Your task to perform on an android device: open the mobile data screen to see how much data has been used Image 0: 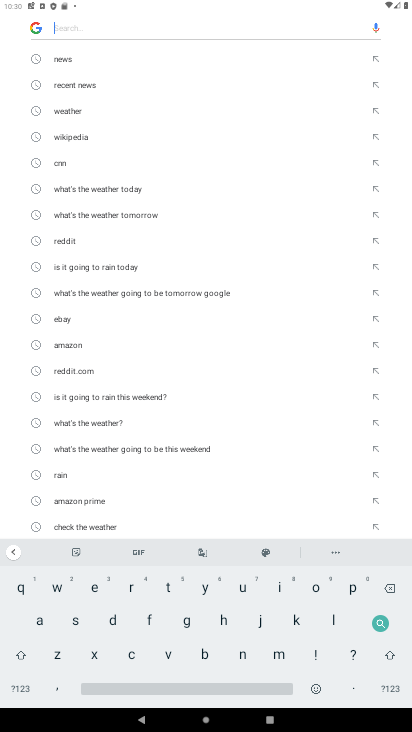
Step 0: press home button
Your task to perform on an android device: open the mobile data screen to see how much data has been used Image 1: 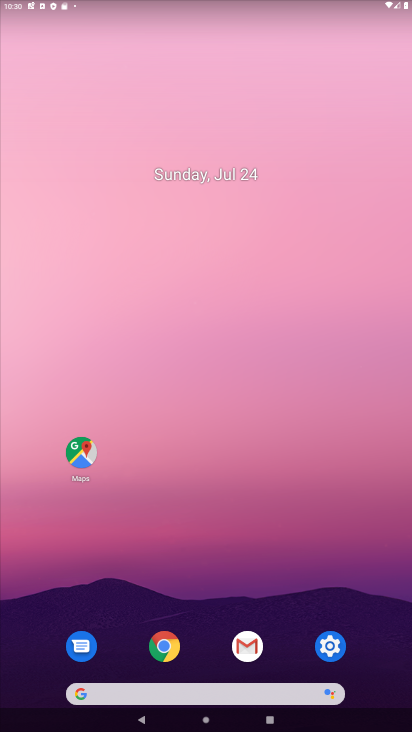
Step 1: click (330, 656)
Your task to perform on an android device: open the mobile data screen to see how much data has been used Image 2: 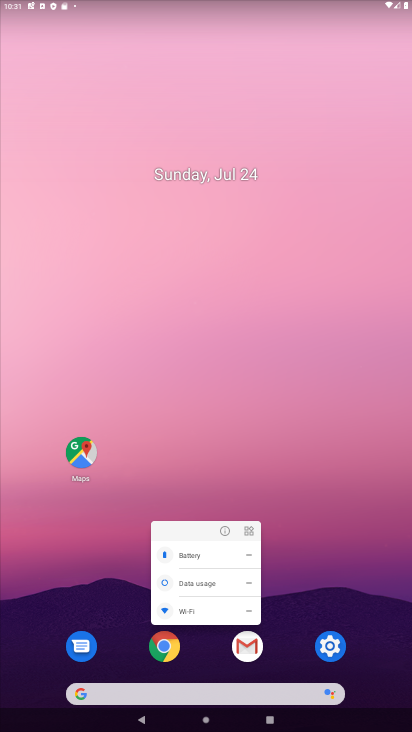
Step 2: click (334, 649)
Your task to perform on an android device: open the mobile data screen to see how much data has been used Image 3: 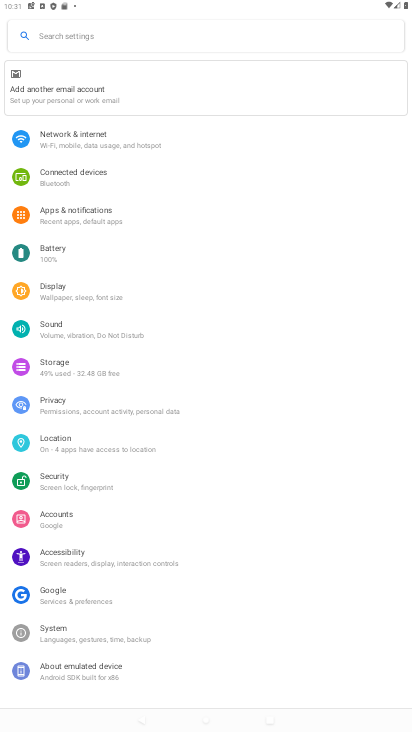
Step 3: click (103, 40)
Your task to perform on an android device: open the mobile data screen to see how much data has been used Image 4: 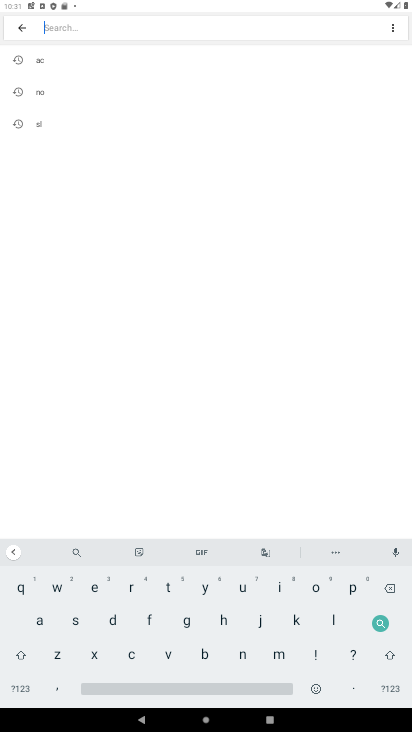
Step 4: click (112, 617)
Your task to perform on an android device: open the mobile data screen to see how much data has been used Image 5: 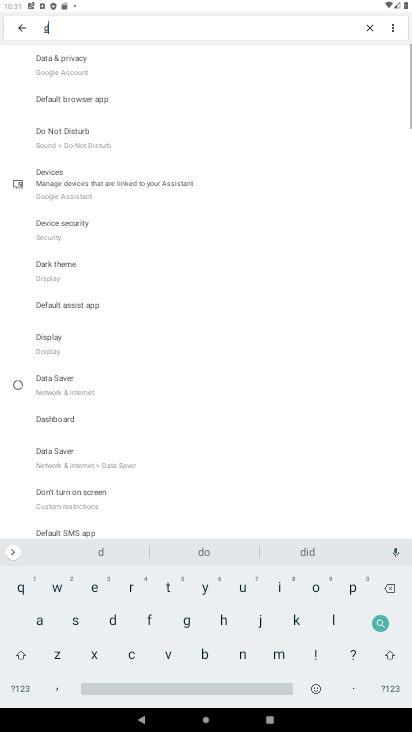
Step 5: click (42, 616)
Your task to perform on an android device: open the mobile data screen to see how much data has been used Image 6: 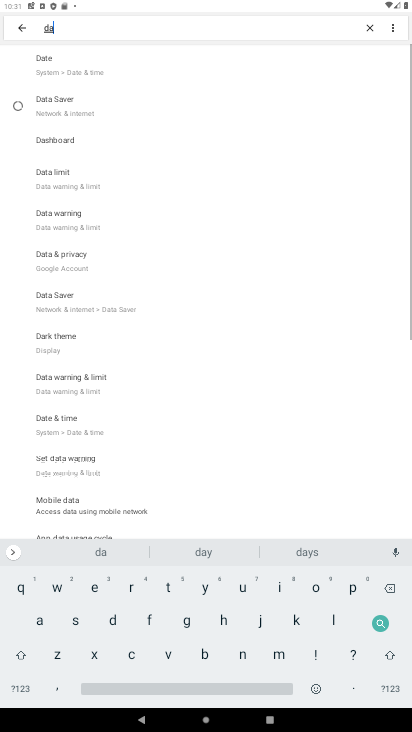
Step 6: click (167, 580)
Your task to perform on an android device: open the mobile data screen to see how much data has been used Image 7: 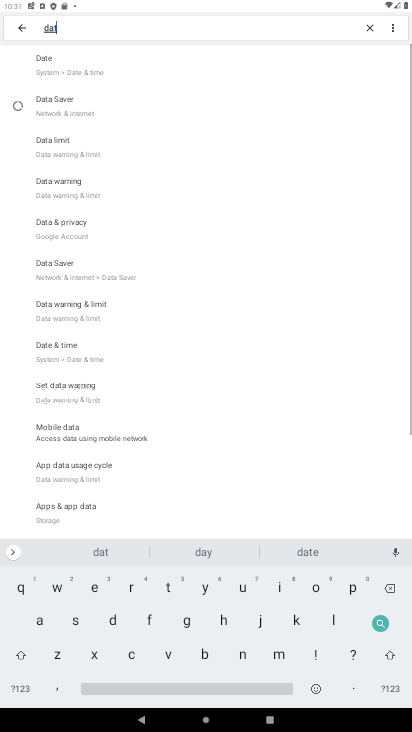
Step 7: click (33, 623)
Your task to perform on an android device: open the mobile data screen to see how much data has been used Image 8: 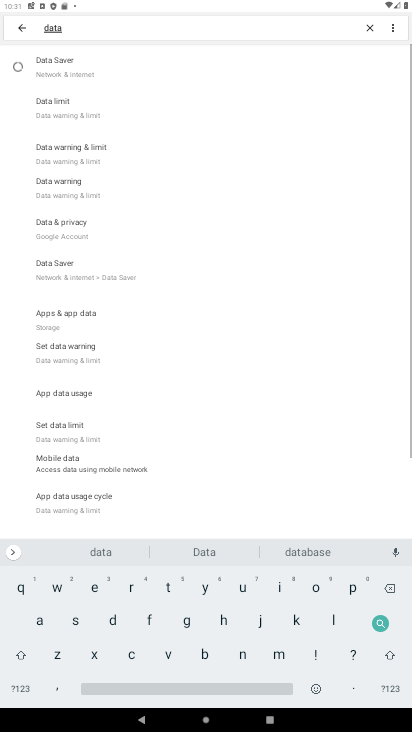
Step 8: click (188, 694)
Your task to perform on an android device: open the mobile data screen to see how much data has been used Image 9: 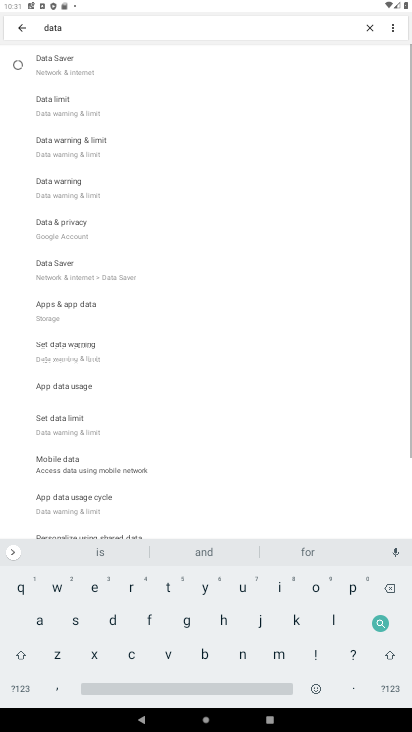
Step 9: click (245, 589)
Your task to perform on an android device: open the mobile data screen to see how much data has been used Image 10: 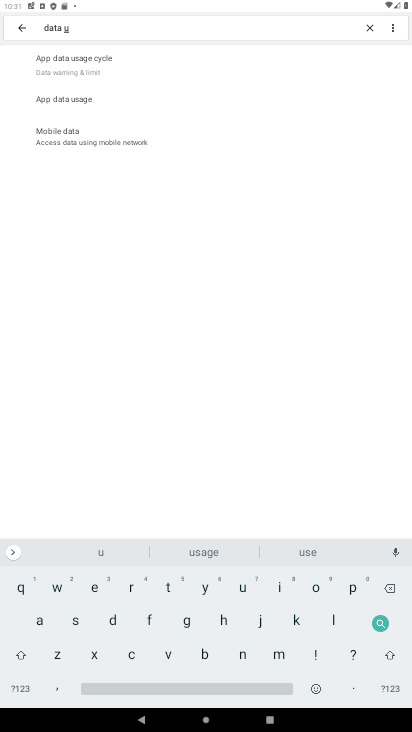
Step 10: click (58, 59)
Your task to perform on an android device: open the mobile data screen to see how much data has been used Image 11: 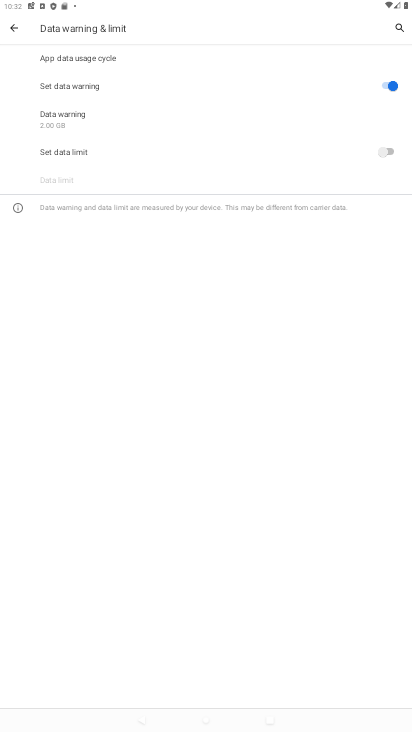
Step 11: task complete